Your task to perform on an android device: Go to Yahoo.com Image 0: 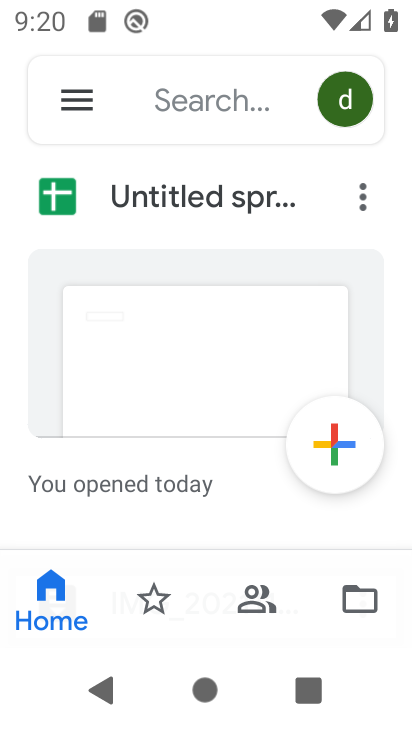
Step 0: press home button
Your task to perform on an android device: Go to Yahoo.com Image 1: 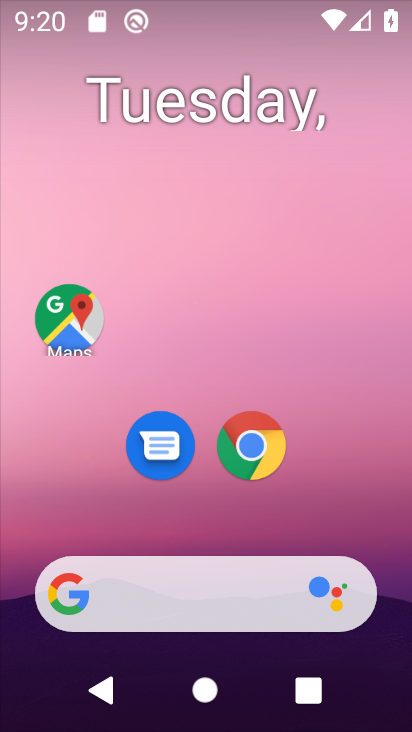
Step 1: click (211, 616)
Your task to perform on an android device: Go to Yahoo.com Image 2: 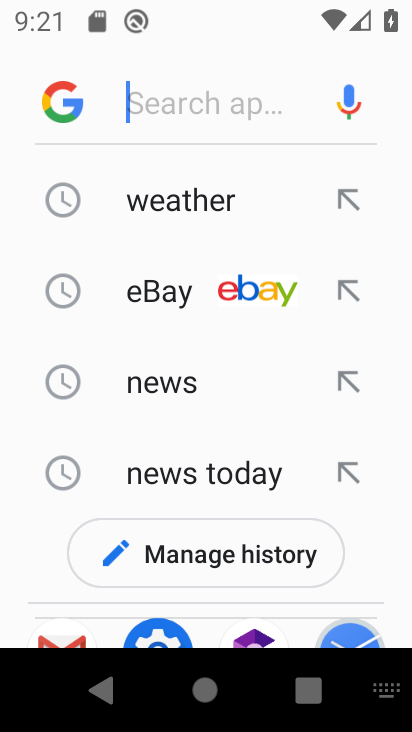
Step 2: type "Yahoo"
Your task to perform on an android device: Go to Yahoo.com Image 3: 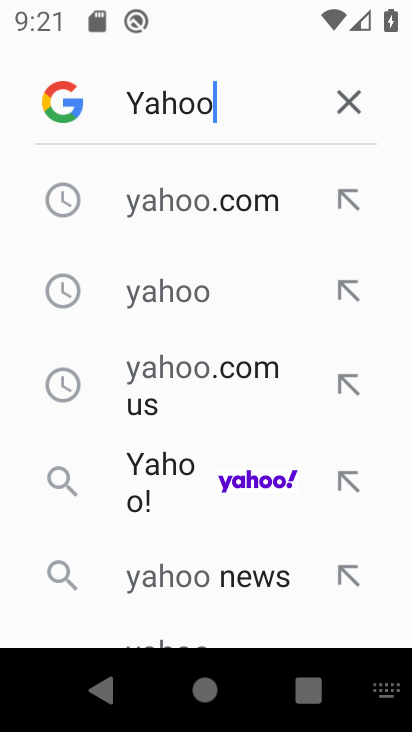
Step 3: click (224, 205)
Your task to perform on an android device: Go to Yahoo.com Image 4: 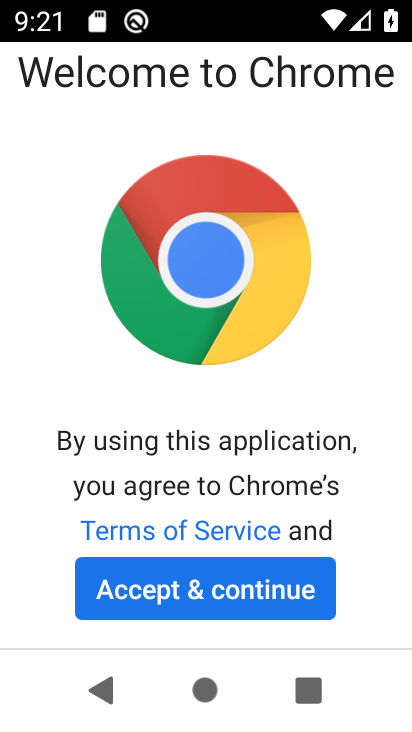
Step 4: click (171, 601)
Your task to perform on an android device: Go to Yahoo.com Image 5: 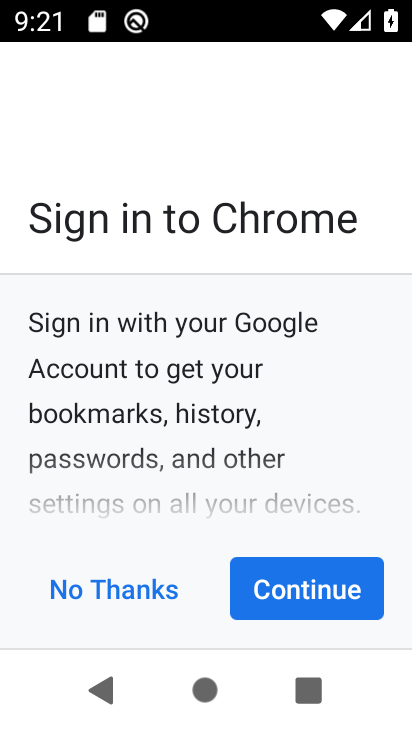
Step 5: click (299, 595)
Your task to perform on an android device: Go to Yahoo.com Image 6: 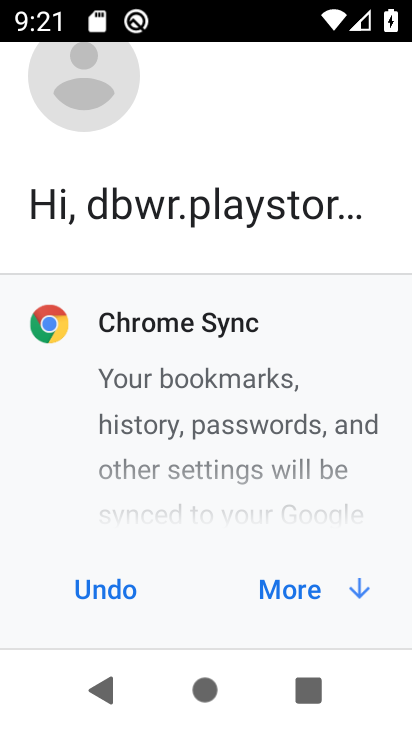
Step 6: click (299, 595)
Your task to perform on an android device: Go to Yahoo.com Image 7: 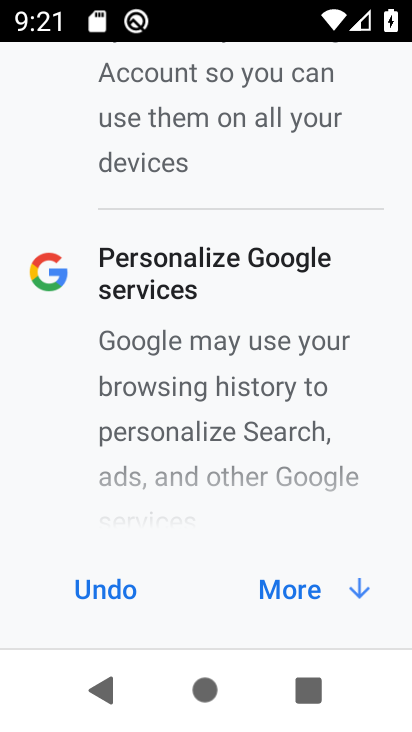
Step 7: click (299, 595)
Your task to perform on an android device: Go to Yahoo.com Image 8: 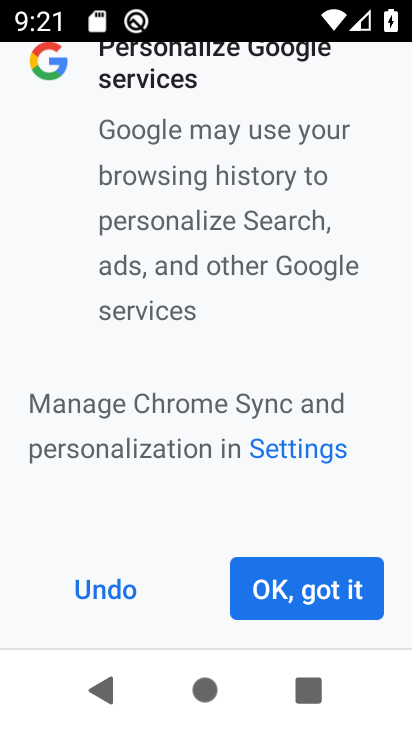
Step 8: click (299, 595)
Your task to perform on an android device: Go to Yahoo.com Image 9: 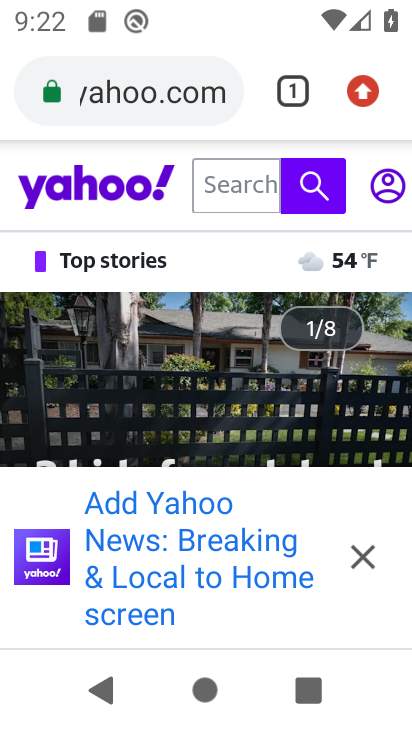
Step 9: task complete